Your task to perform on an android device: change the clock display to digital Image 0: 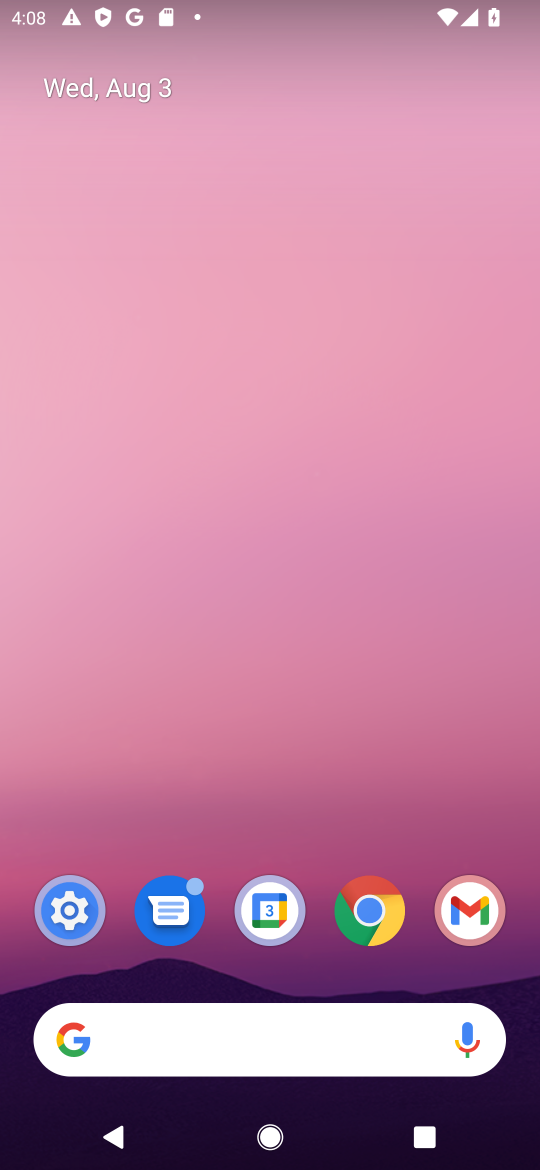
Step 0: drag from (126, 980) to (376, 321)
Your task to perform on an android device: change the clock display to digital Image 1: 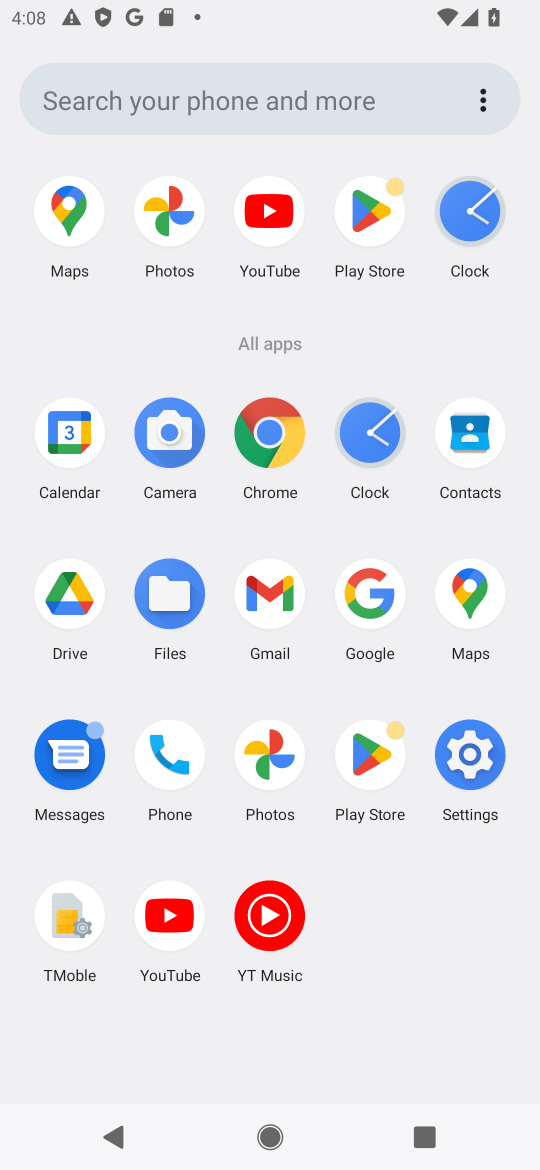
Step 1: click (373, 433)
Your task to perform on an android device: change the clock display to digital Image 2: 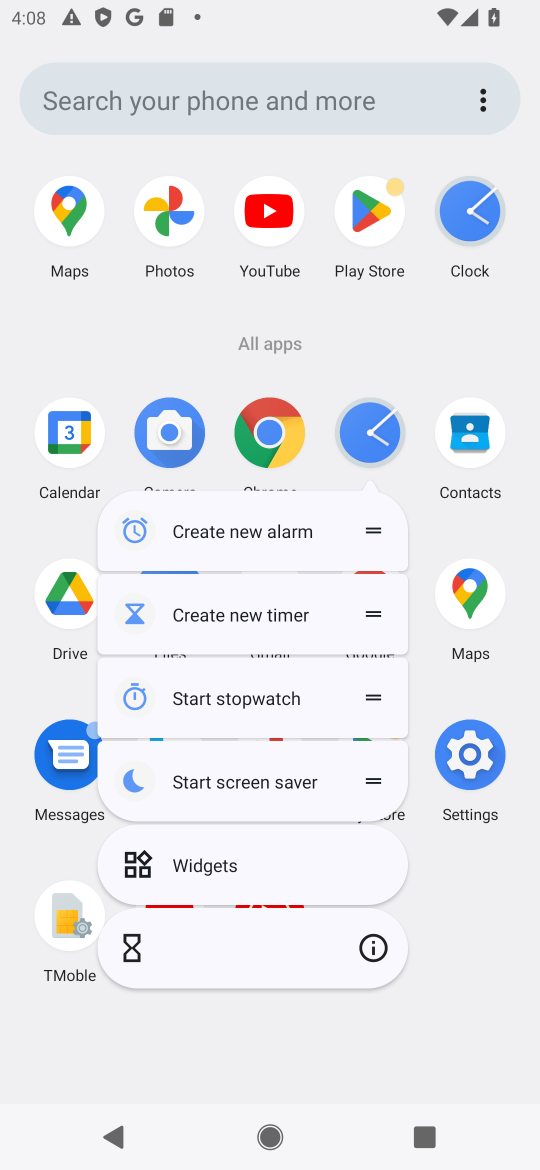
Step 2: click (367, 430)
Your task to perform on an android device: change the clock display to digital Image 3: 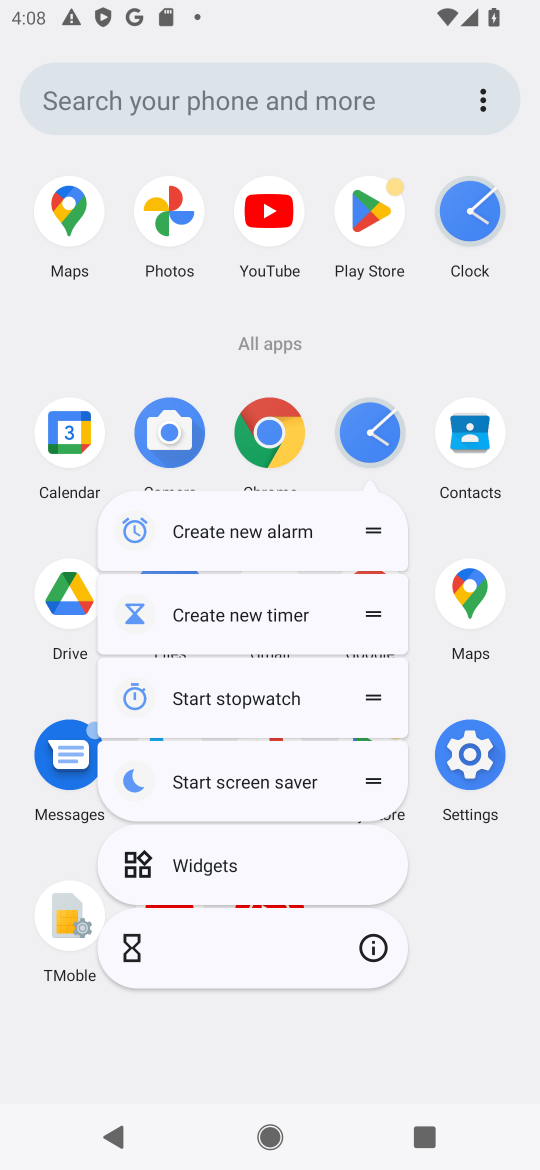
Step 3: click (349, 459)
Your task to perform on an android device: change the clock display to digital Image 4: 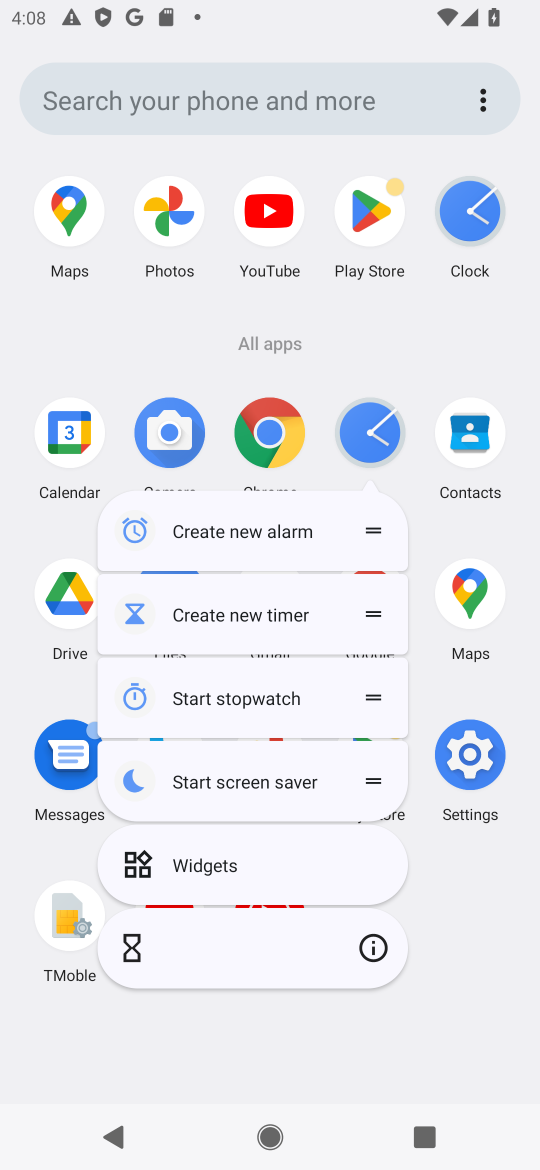
Step 4: click (385, 411)
Your task to perform on an android device: change the clock display to digital Image 5: 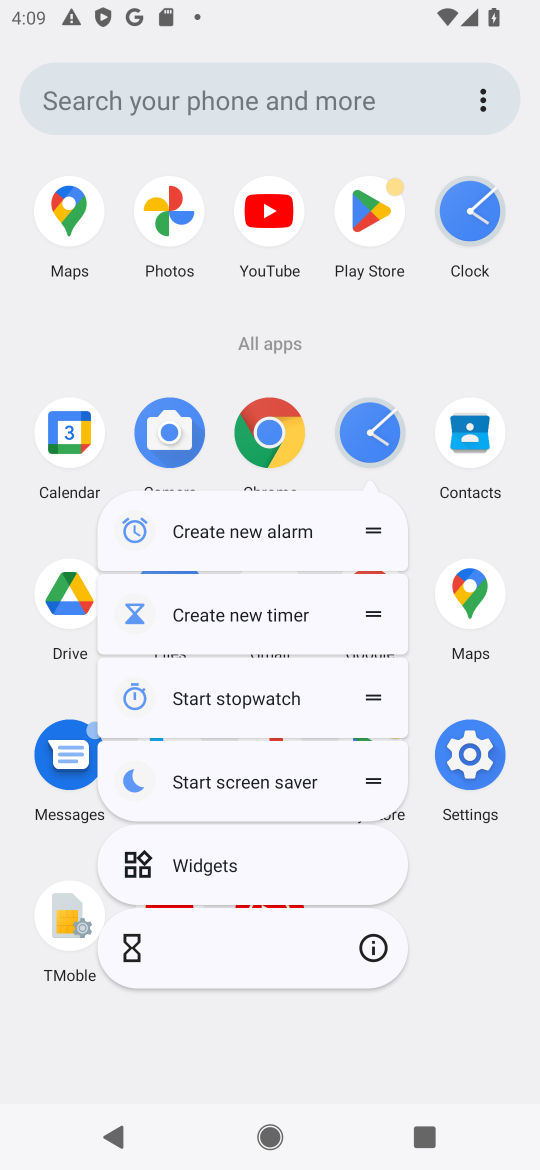
Step 5: click (387, 448)
Your task to perform on an android device: change the clock display to digital Image 6: 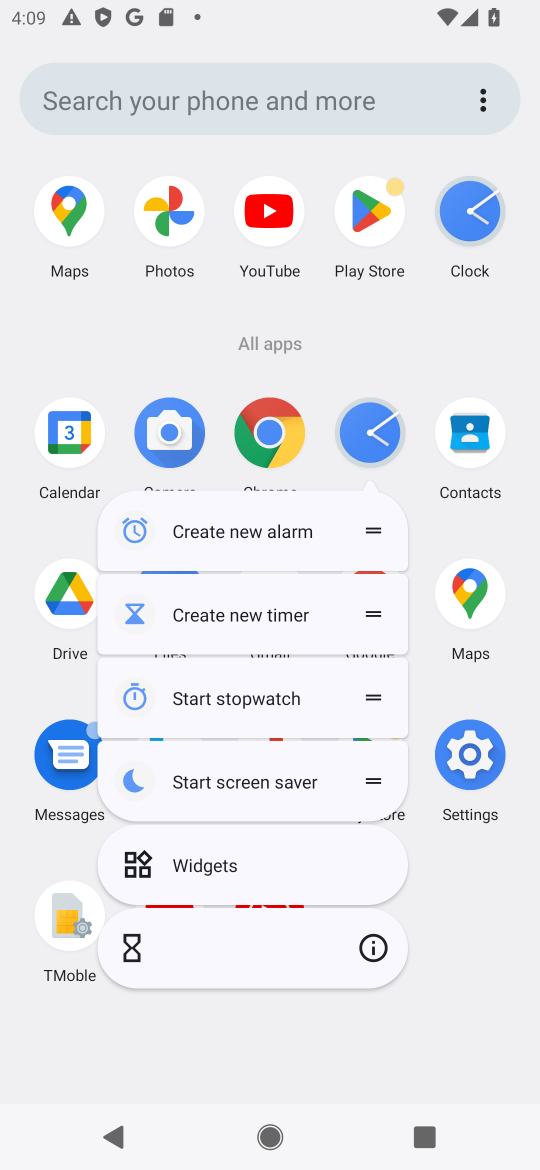
Step 6: click (380, 417)
Your task to perform on an android device: change the clock display to digital Image 7: 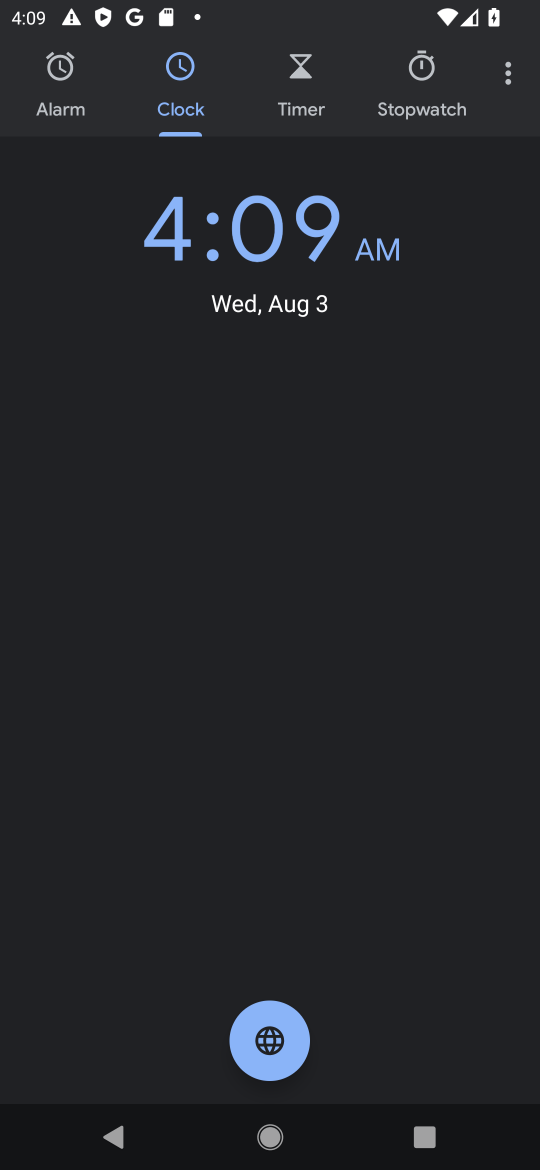
Step 7: click (510, 64)
Your task to perform on an android device: change the clock display to digital Image 8: 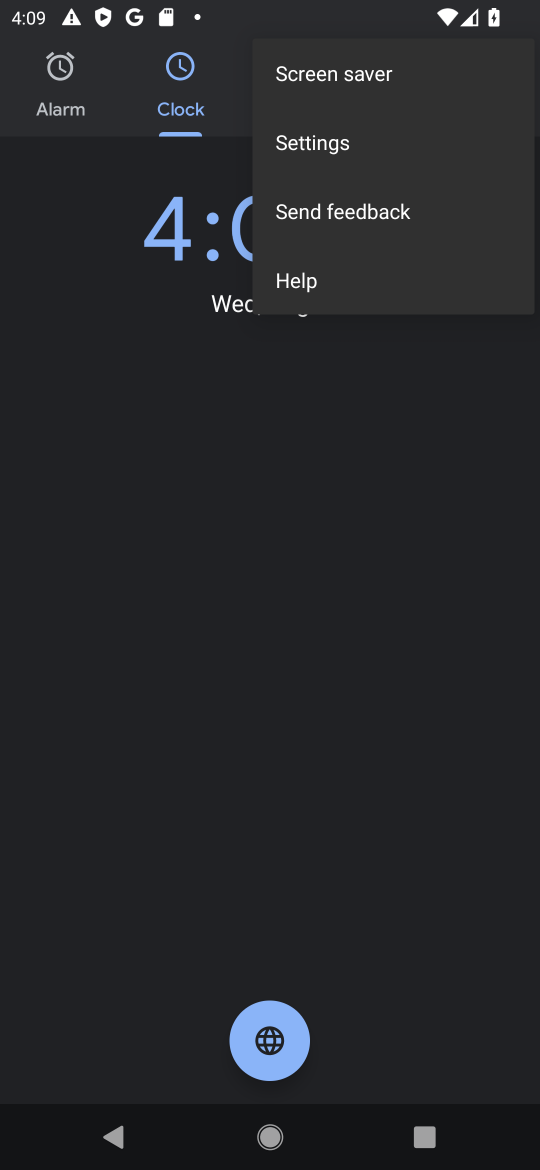
Step 8: click (340, 146)
Your task to perform on an android device: change the clock display to digital Image 9: 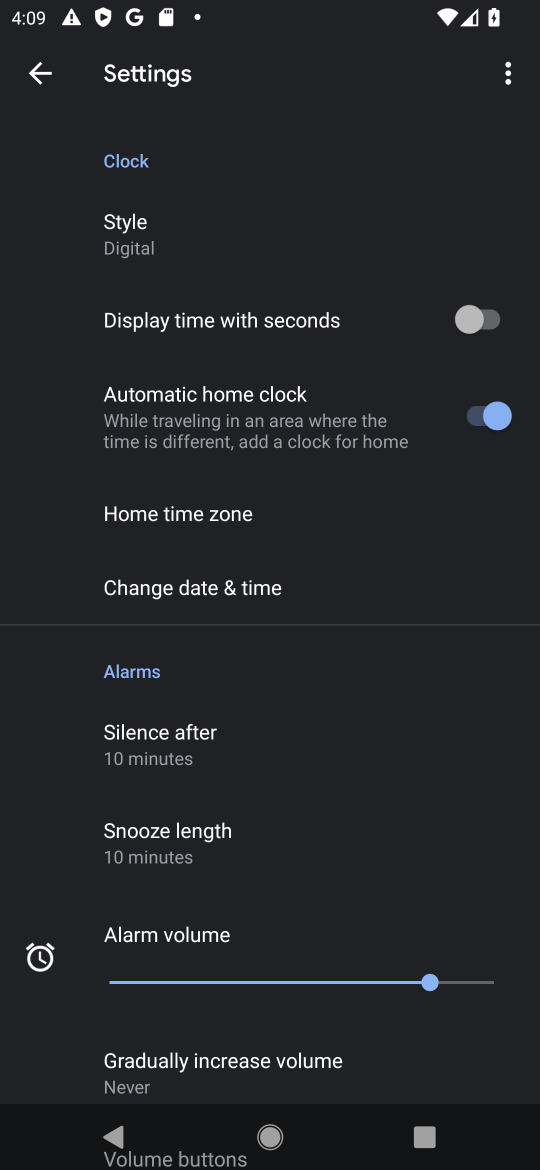
Step 9: task complete